Your task to perform on an android device: Go to battery settings Image 0: 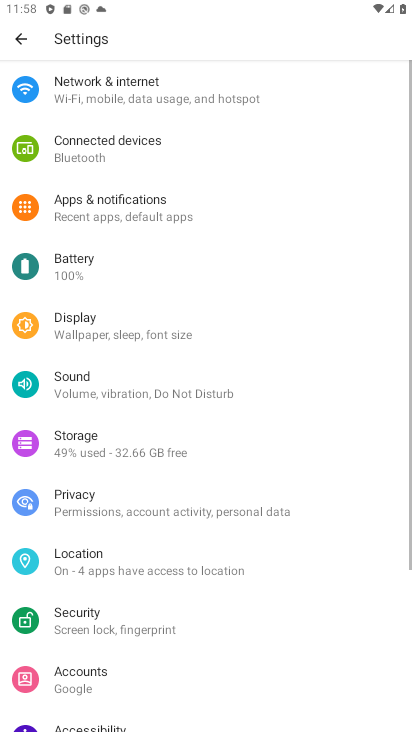
Step 0: click (85, 276)
Your task to perform on an android device: Go to battery settings Image 1: 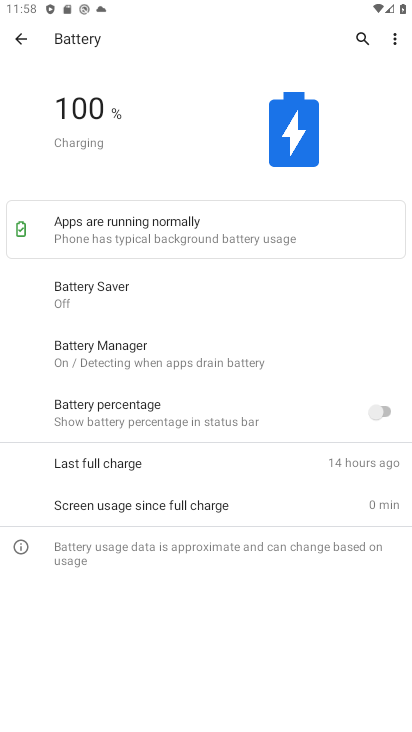
Step 1: task complete